Your task to perform on an android device: turn on data saver in the chrome app Image 0: 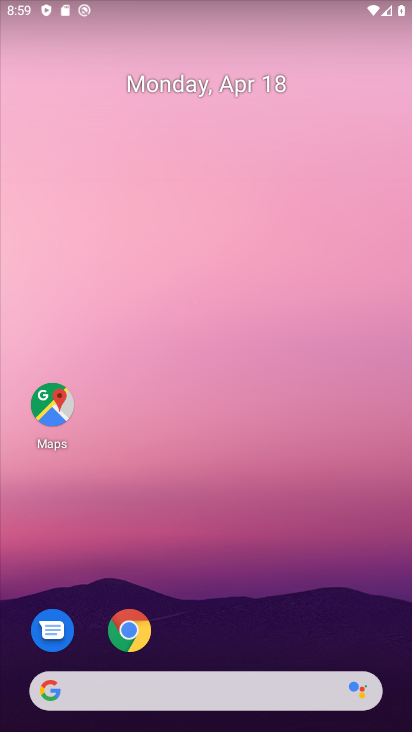
Step 0: click (127, 617)
Your task to perform on an android device: turn on data saver in the chrome app Image 1: 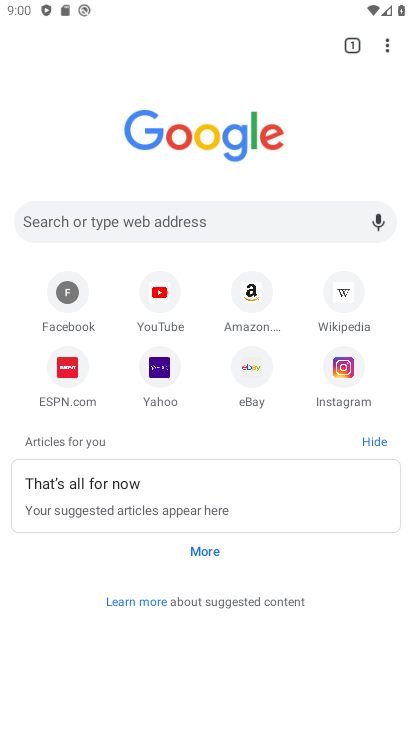
Step 1: click (386, 45)
Your task to perform on an android device: turn on data saver in the chrome app Image 2: 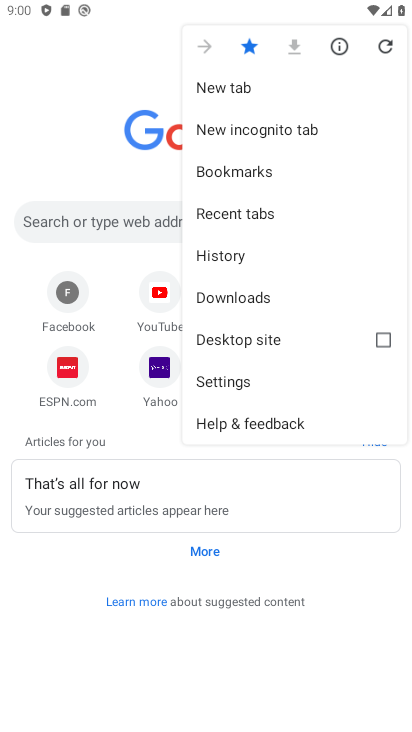
Step 2: click (260, 378)
Your task to perform on an android device: turn on data saver in the chrome app Image 3: 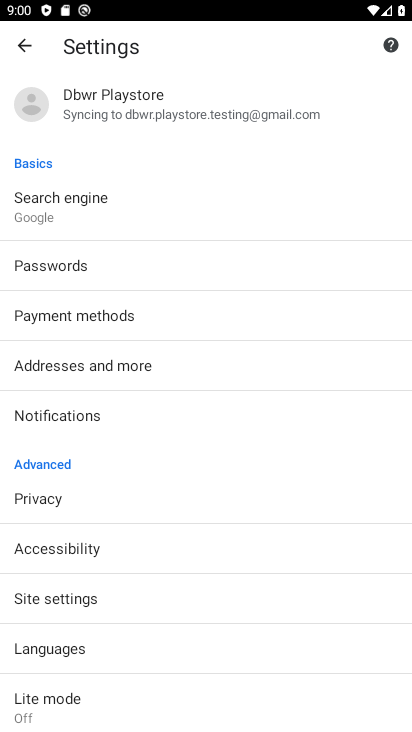
Step 3: click (125, 707)
Your task to perform on an android device: turn on data saver in the chrome app Image 4: 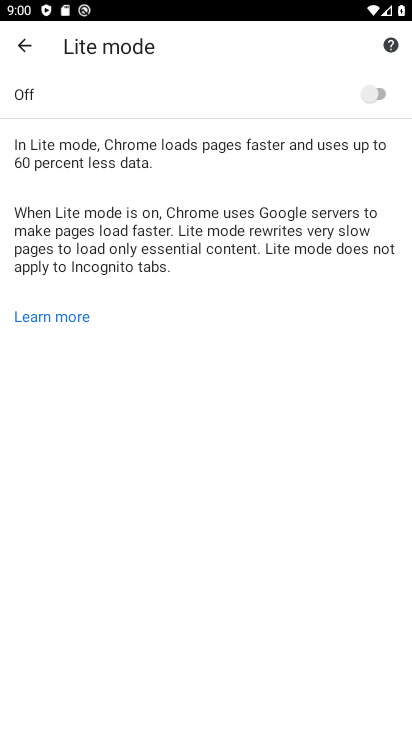
Step 4: click (379, 86)
Your task to perform on an android device: turn on data saver in the chrome app Image 5: 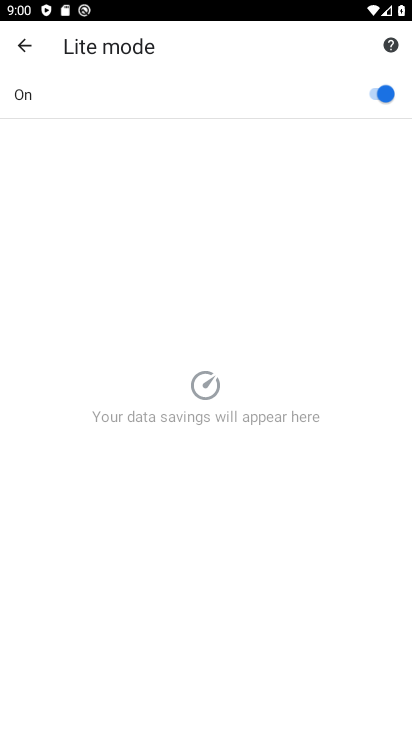
Step 5: task complete